Your task to perform on an android device: Go to notification settings Image 0: 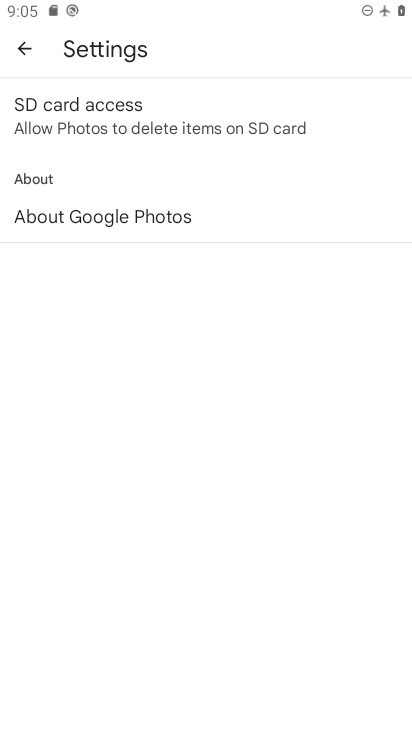
Step 0: click (30, 51)
Your task to perform on an android device: Go to notification settings Image 1: 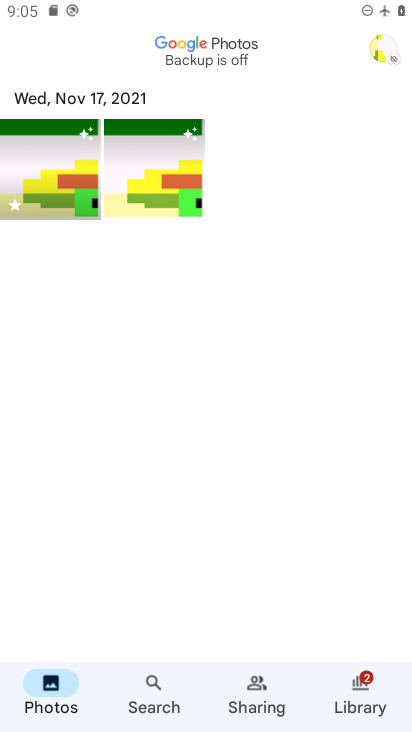
Step 1: press home button
Your task to perform on an android device: Go to notification settings Image 2: 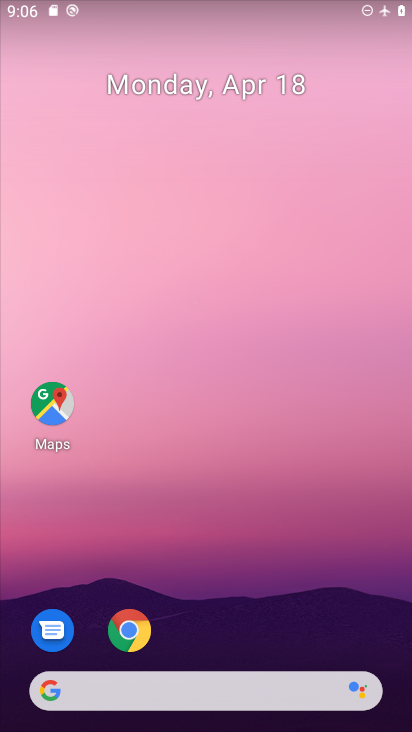
Step 2: drag from (184, 638) to (240, 232)
Your task to perform on an android device: Go to notification settings Image 3: 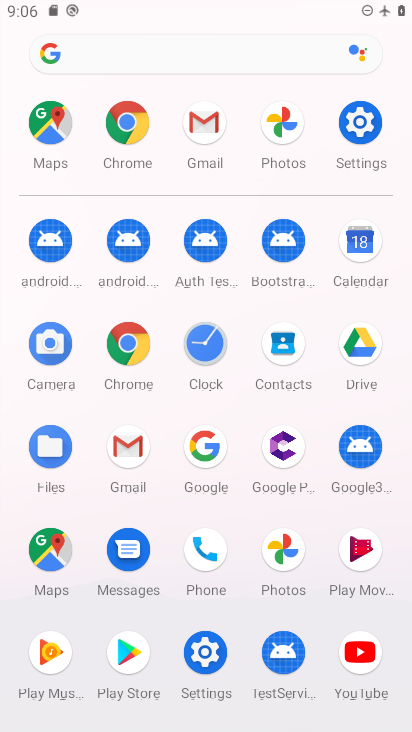
Step 3: click (364, 128)
Your task to perform on an android device: Go to notification settings Image 4: 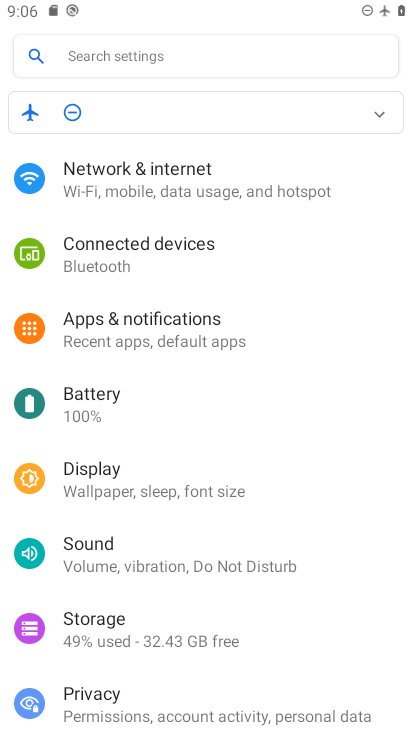
Step 4: click (157, 327)
Your task to perform on an android device: Go to notification settings Image 5: 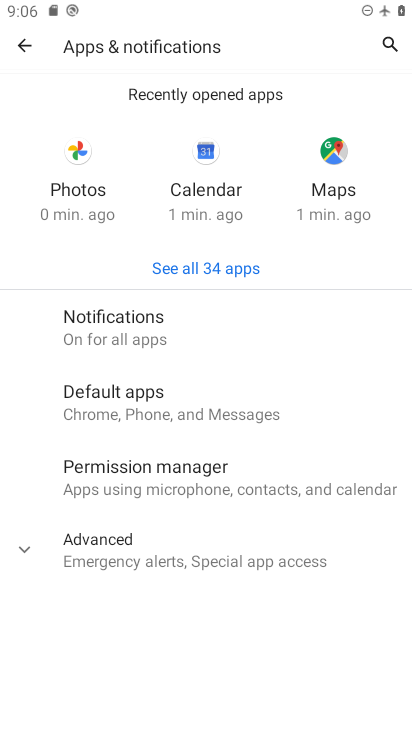
Step 5: click (124, 340)
Your task to perform on an android device: Go to notification settings Image 6: 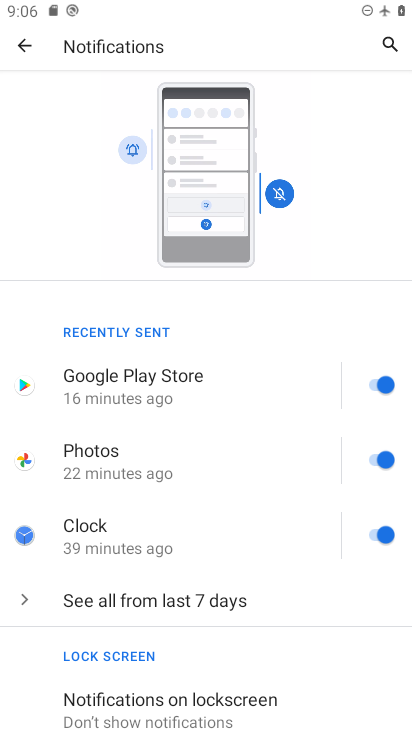
Step 6: task complete